Your task to perform on an android device: all mails in gmail Image 0: 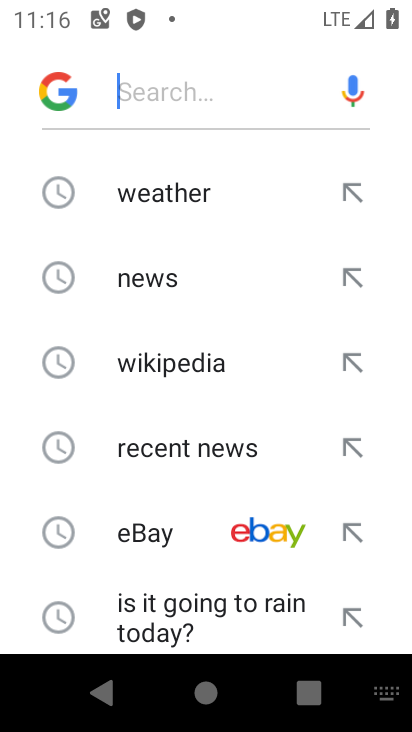
Step 0: press home button
Your task to perform on an android device: all mails in gmail Image 1: 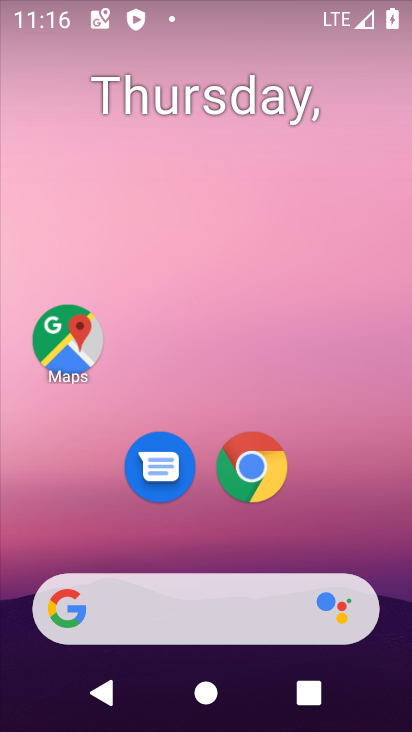
Step 1: drag from (201, 547) to (289, 47)
Your task to perform on an android device: all mails in gmail Image 2: 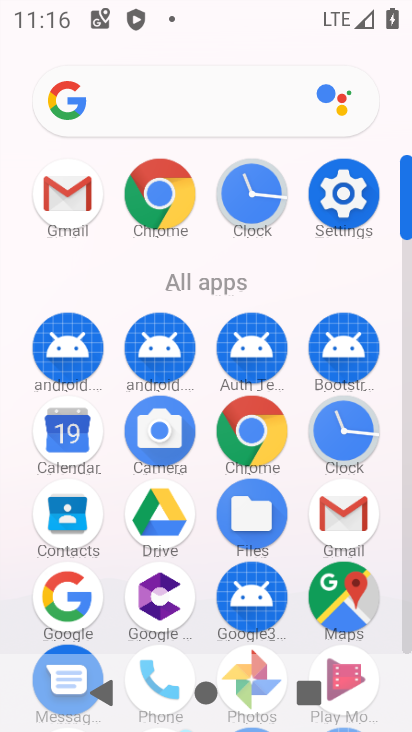
Step 2: click (60, 196)
Your task to perform on an android device: all mails in gmail Image 3: 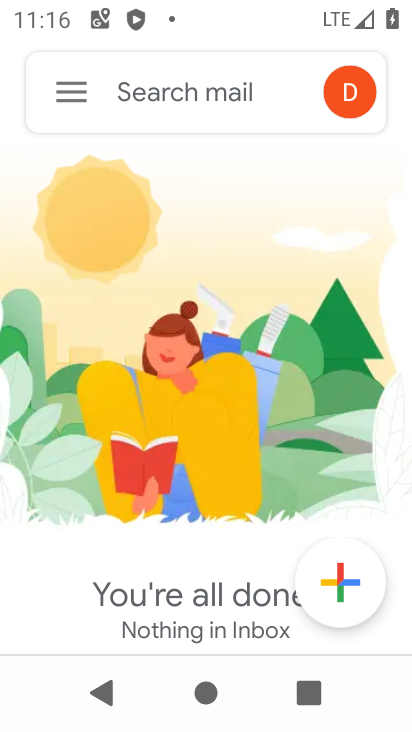
Step 3: click (70, 87)
Your task to perform on an android device: all mails in gmail Image 4: 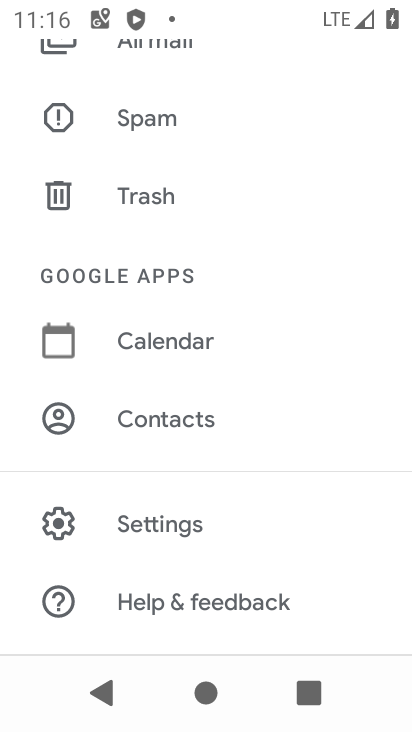
Step 4: click (191, 54)
Your task to perform on an android device: all mails in gmail Image 5: 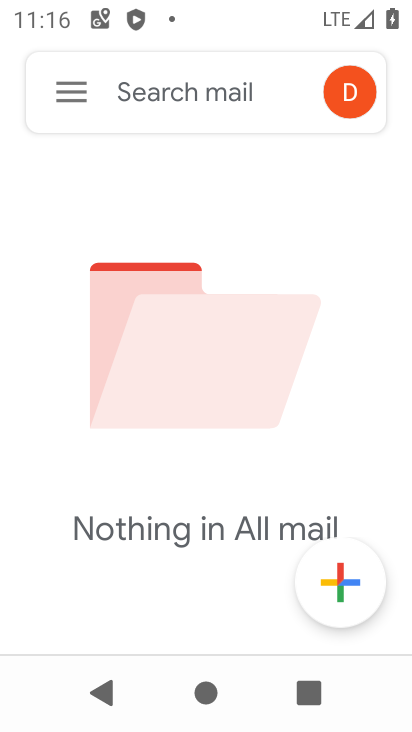
Step 5: task complete